Your task to perform on an android device: What's the weather going to be this weekend? Image 0: 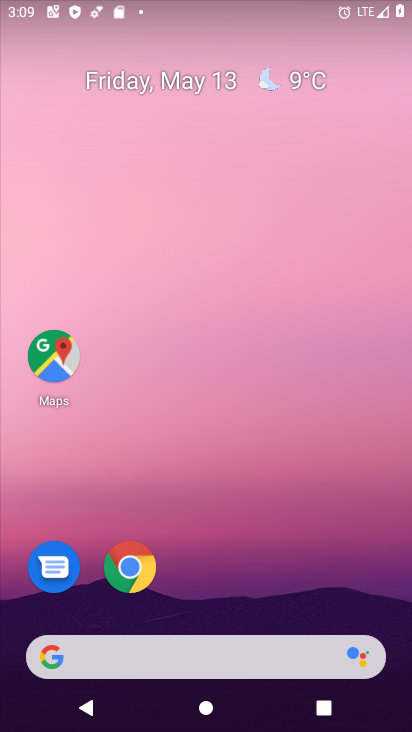
Step 0: drag from (214, 574) to (319, 8)
Your task to perform on an android device: What's the weather going to be this weekend? Image 1: 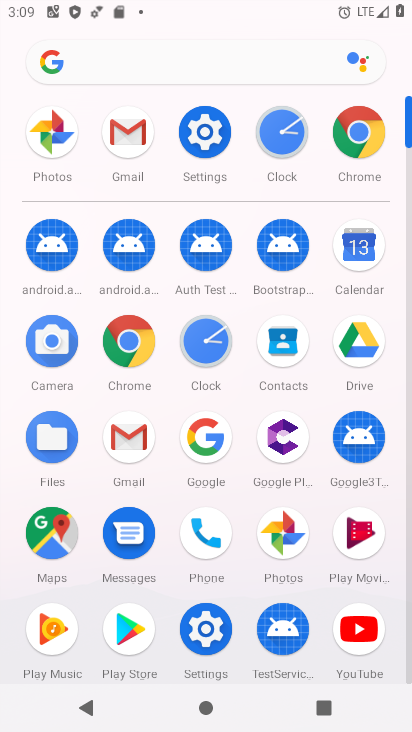
Step 1: press home button
Your task to perform on an android device: What's the weather going to be this weekend? Image 2: 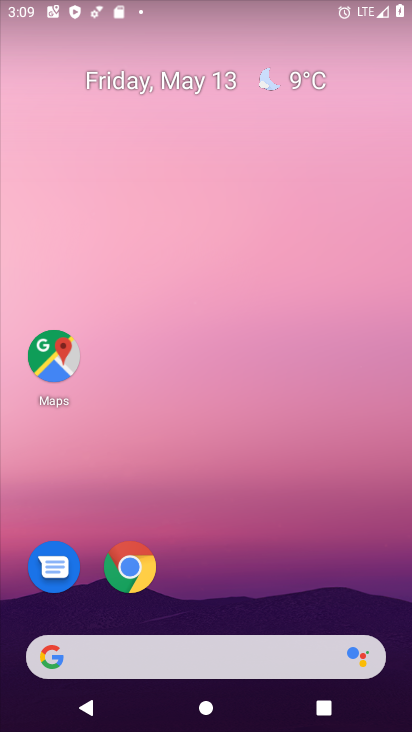
Step 2: click (294, 81)
Your task to perform on an android device: What's the weather going to be this weekend? Image 3: 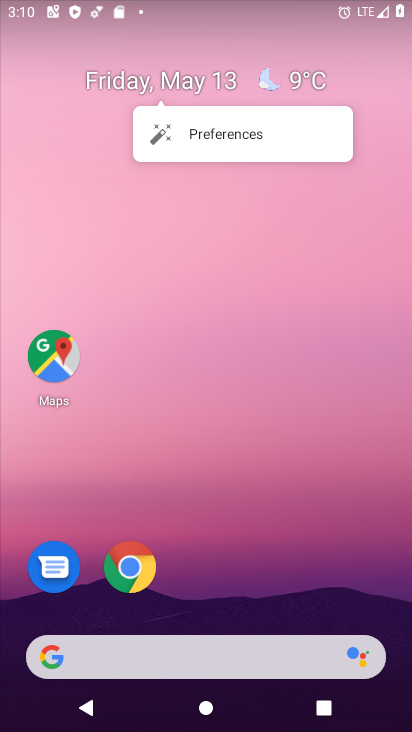
Step 3: click (289, 67)
Your task to perform on an android device: What's the weather going to be this weekend? Image 4: 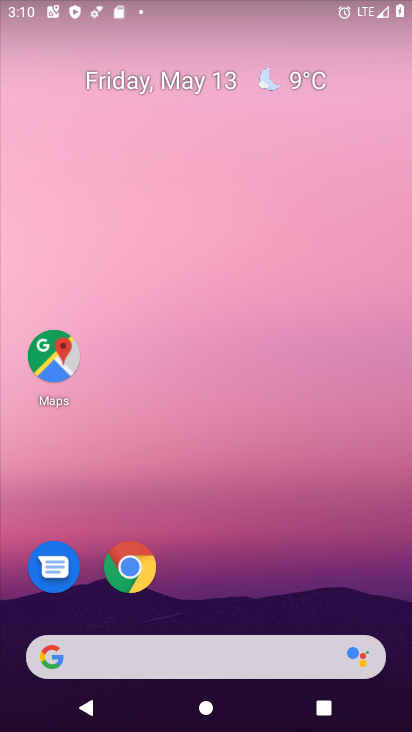
Step 4: click (295, 78)
Your task to perform on an android device: What's the weather going to be this weekend? Image 5: 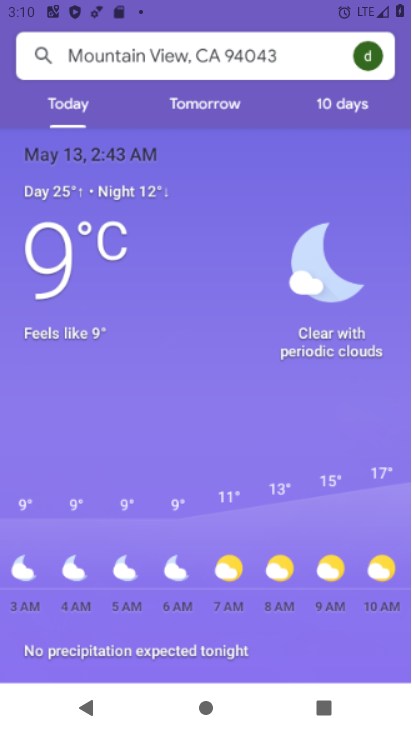
Step 5: click (291, 83)
Your task to perform on an android device: What's the weather going to be this weekend? Image 6: 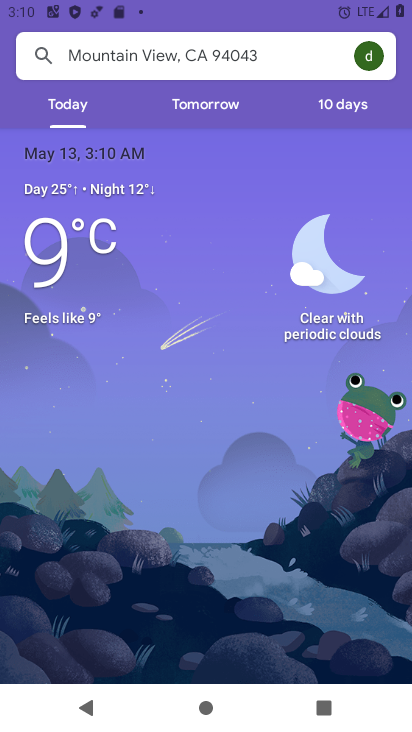
Step 6: click (350, 116)
Your task to perform on an android device: What's the weather going to be this weekend? Image 7: 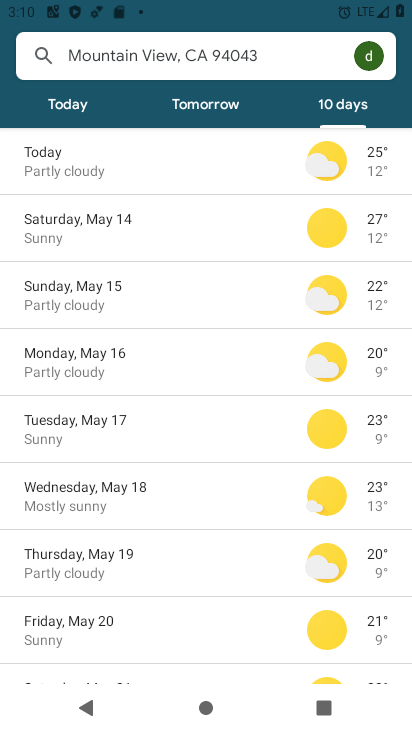
Step 7: task complete